Your task to perform on an android device: open app "Facebook" Image 0: 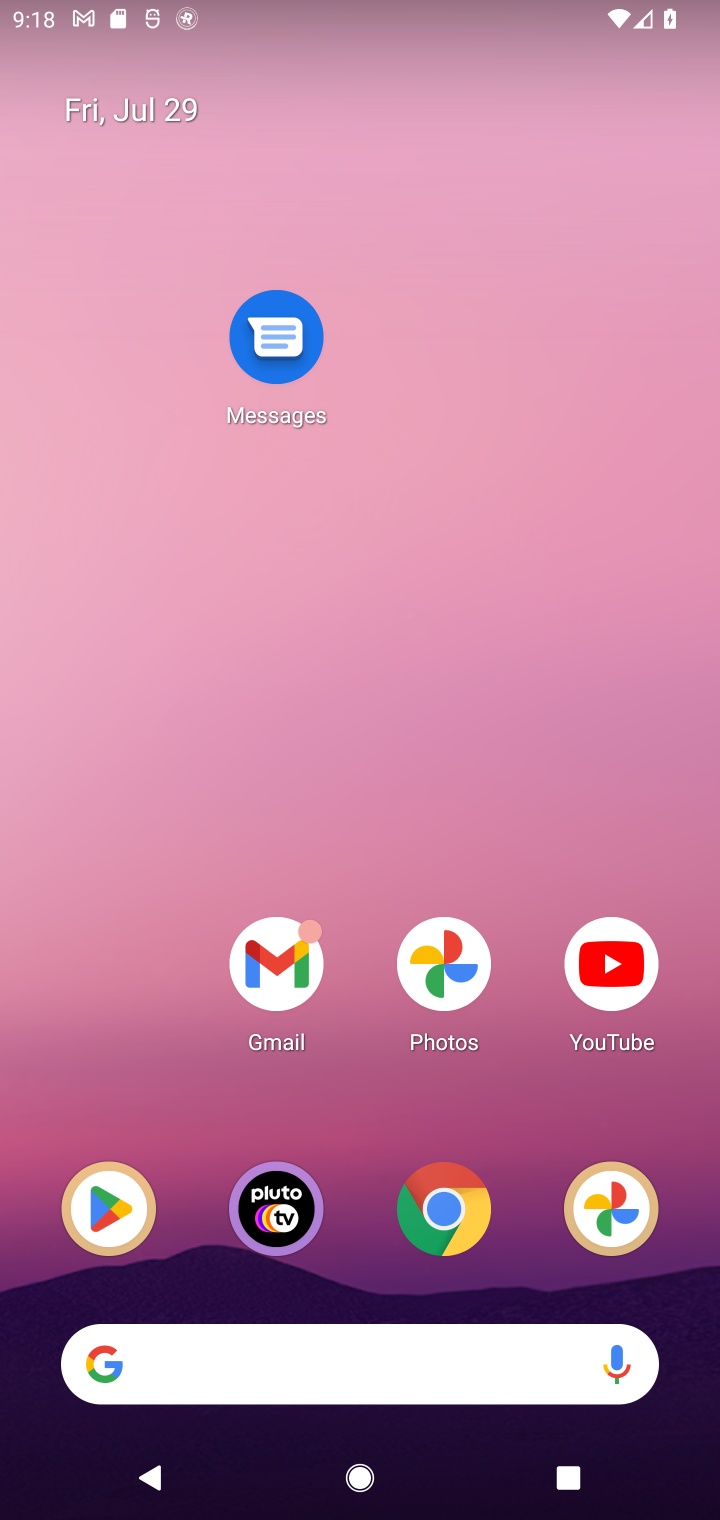
Step 0: drag from (261, 1313) to (392, 93)
Your task to perform on an android device: open app "Facebook" Image 1: 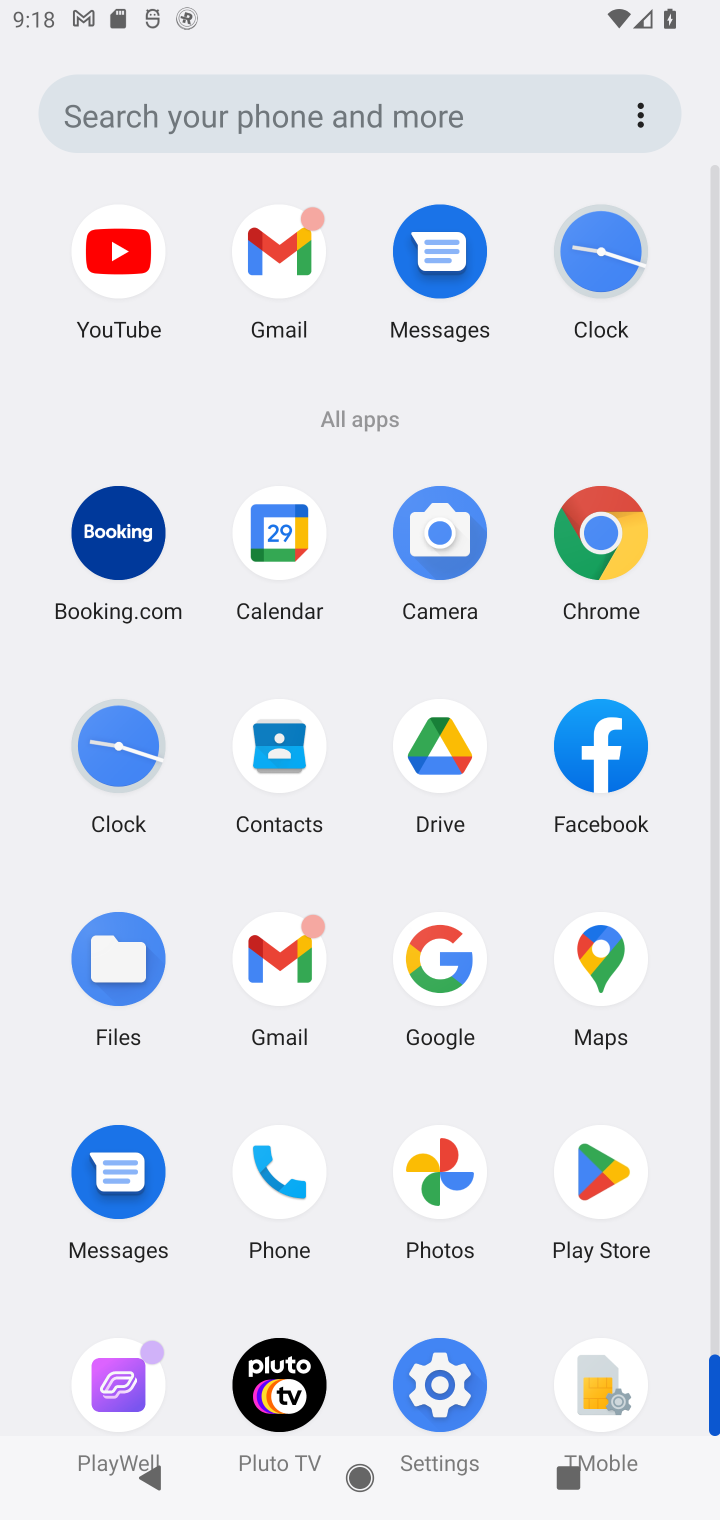
Step 1: click (606, 1175)
Your task to perform on an android device: open app "Facebook" Image 2: 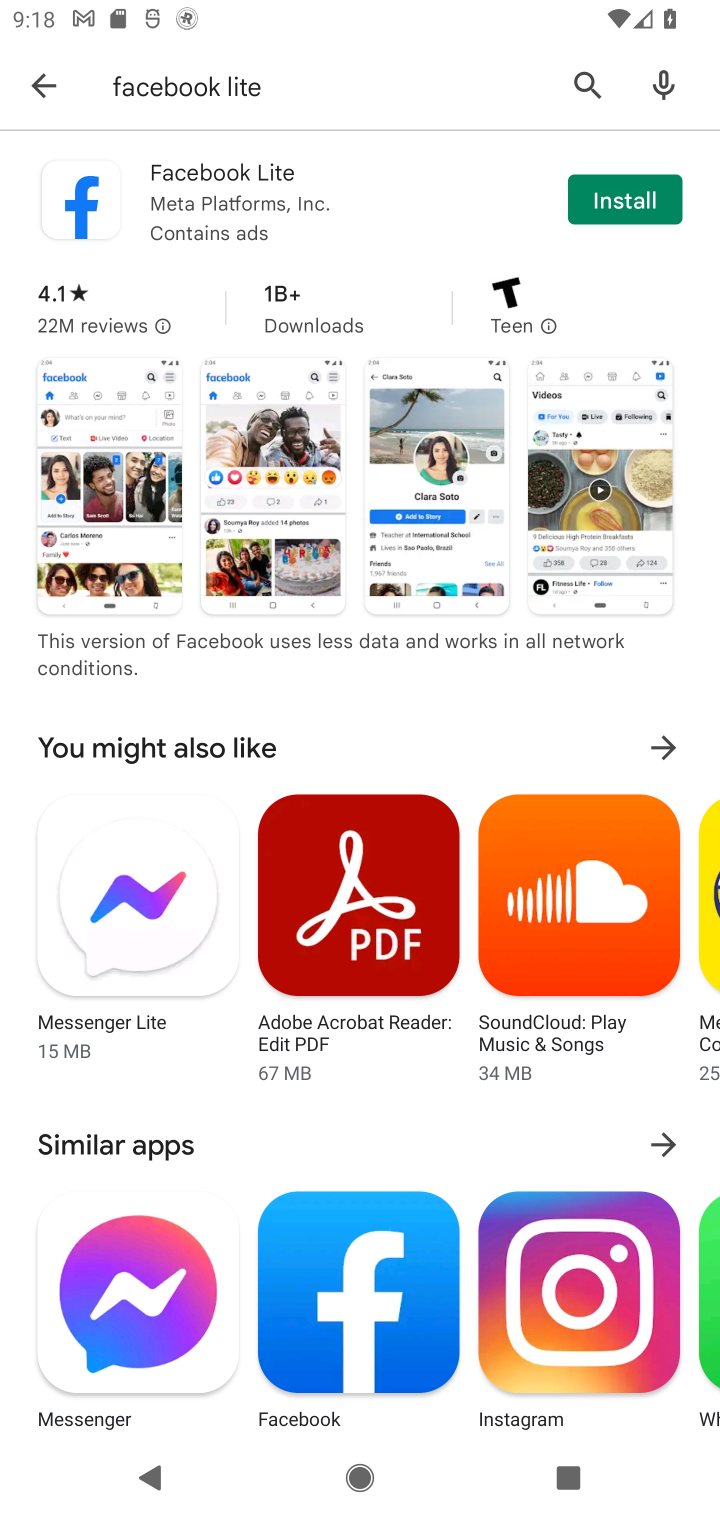
Step 2: click (507, 96)
Your task to perform on an android device: open app "Facebook" Image 3: 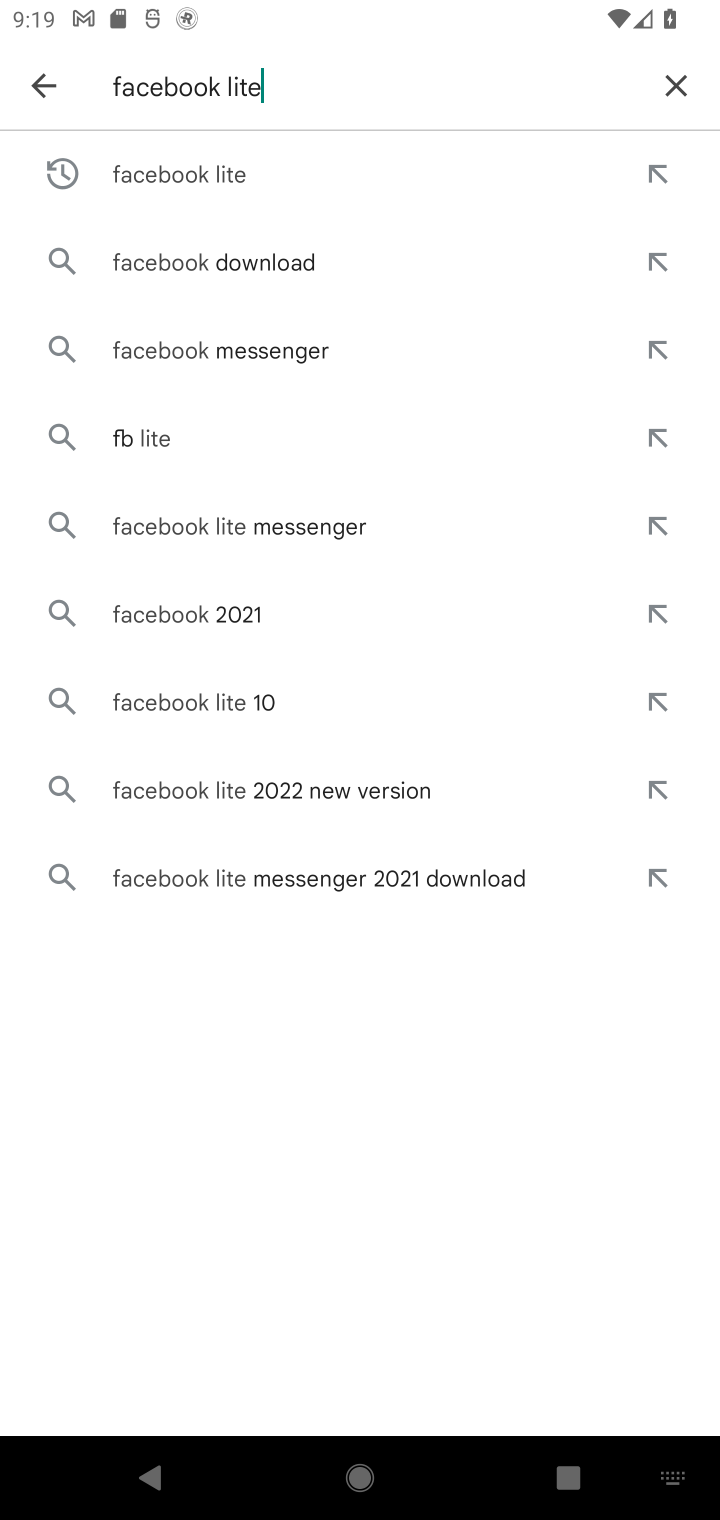
Step 3: click (679, 84)
Your task to perform on an android device: open app "Facebook" Image 4: 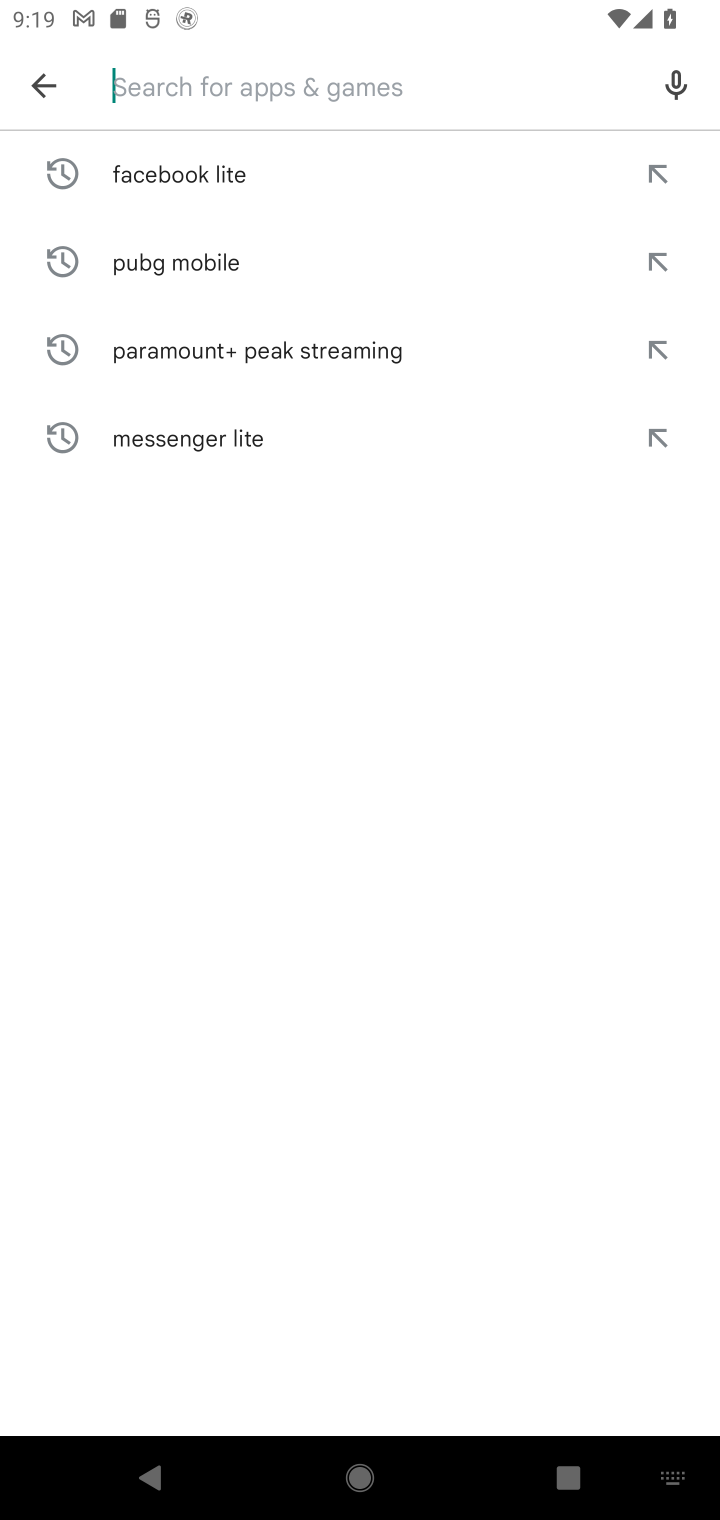
Step 4: type "Facebook"
Your task to perform on an android device: open app "Facebook" Image 5: 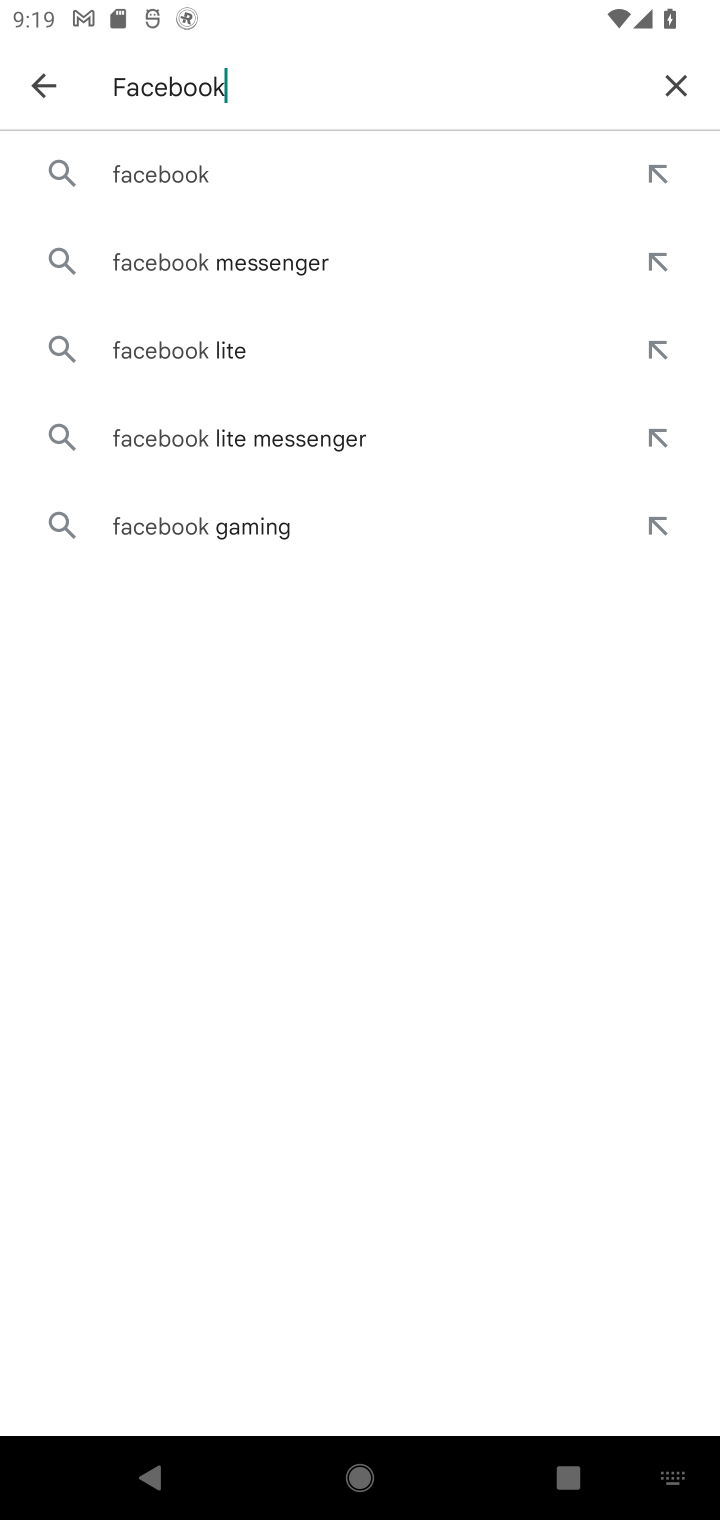
Step 5: click (136, 173)
Your task to perform on an android device: open app "Facebook" Image 6: 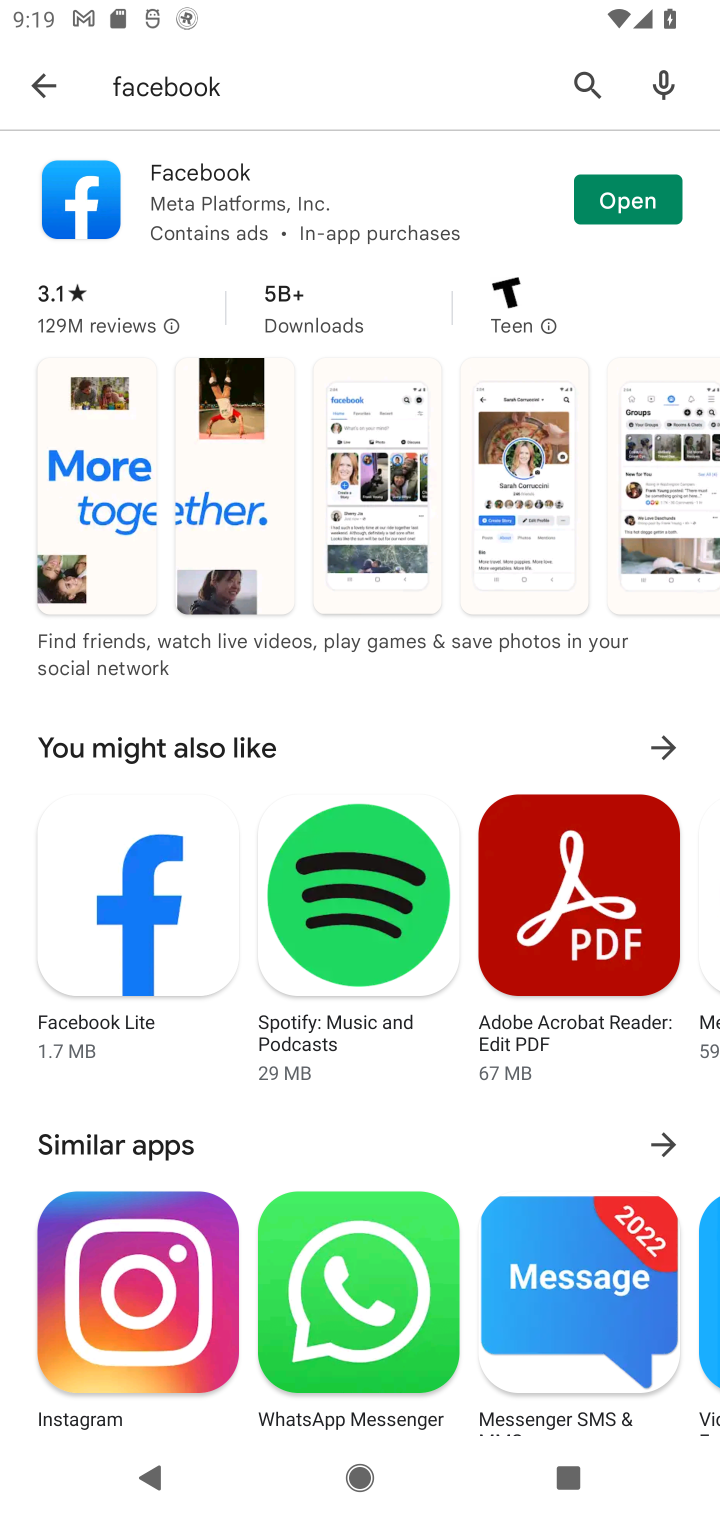
Step 6: click (617, 203)
Your task to perform on an android device: open app "Facebook" Image 7: 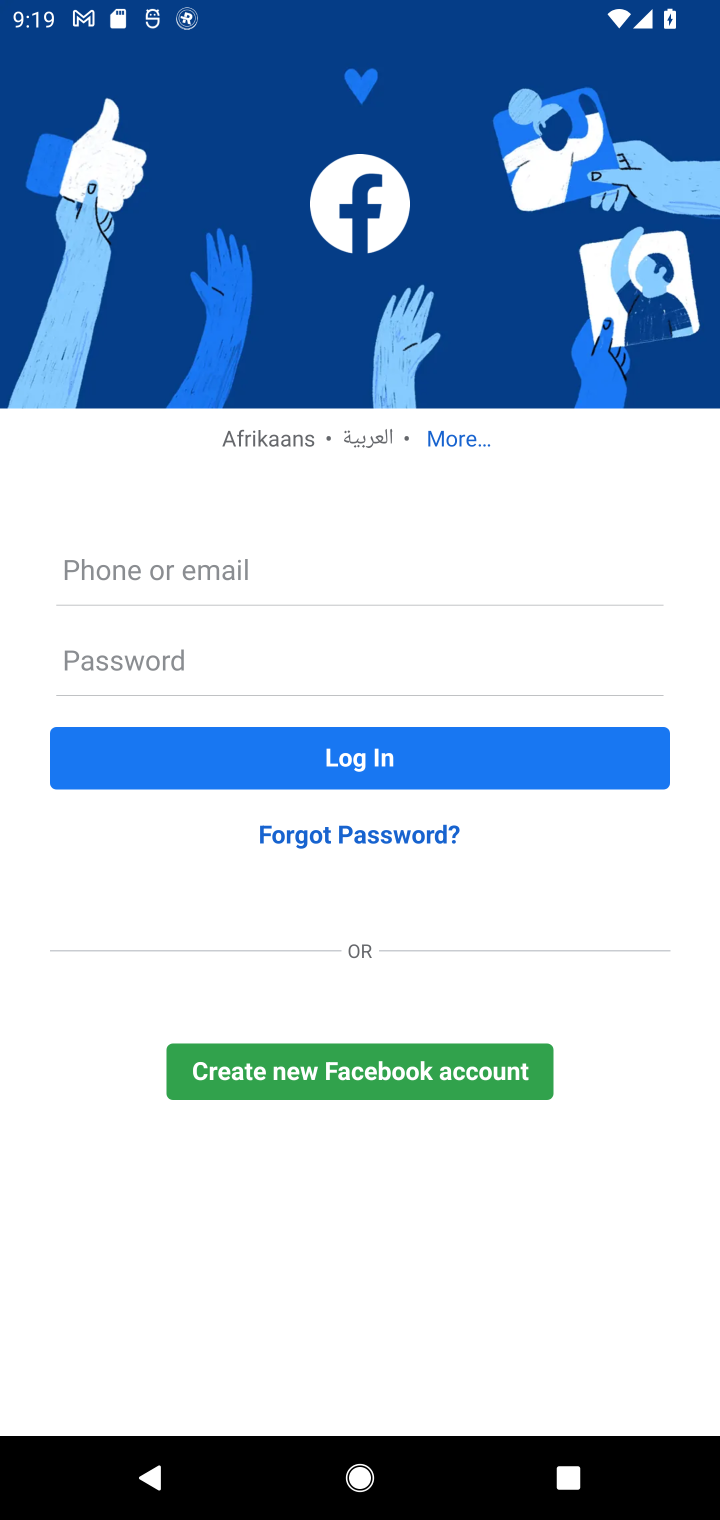
Step 7: task complete